Your task to perform on an android device: read, delete, or share a saved page in the chrome app Image 0: 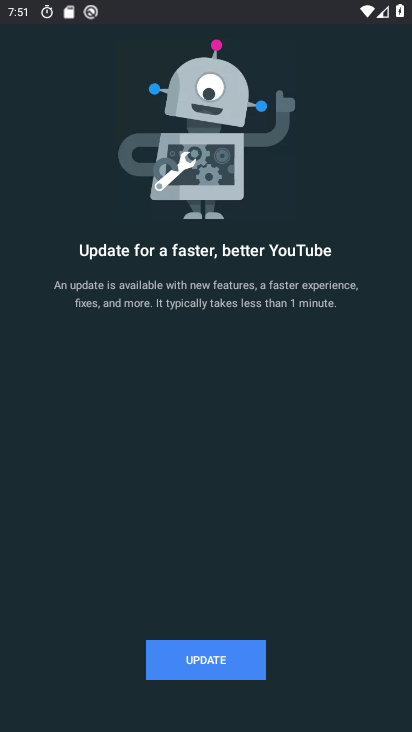
Step 0: press home button
Your task to perform on an android device: read, delete, or share a saved page in the chrome app Image 1: 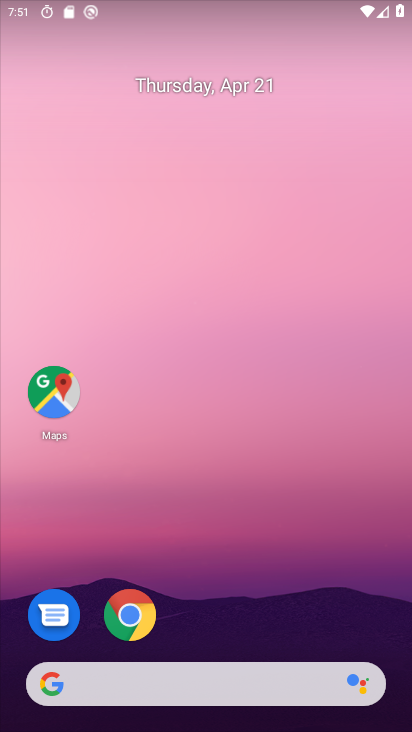
Step 1: drag from (208, 679) to (363, 110)
Your task to perform on an android device: read, delete, or share a saved page in the chrome app Image 2: 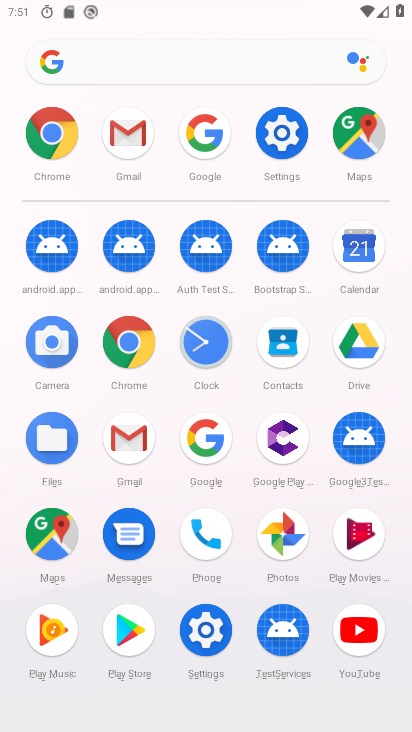
Step 2: click (59, 139)
Your task to perform on an android device: read, delete, or share a saved page in the chrome app Image 3: 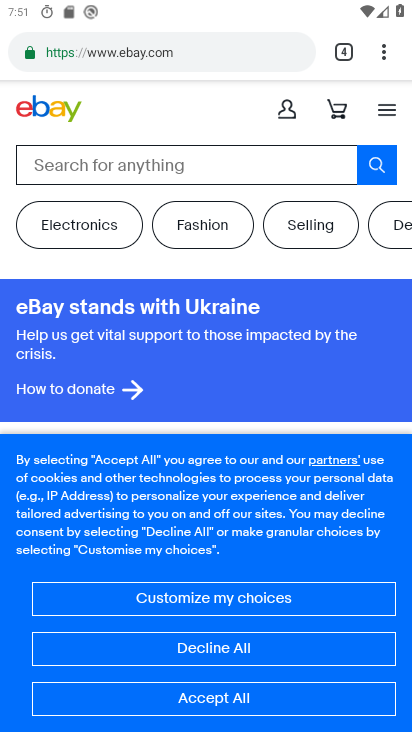
Step 3: click (370, 62)
Your task to perform on an android device: read, delete, or share a saved page in the chrome app Image 4: 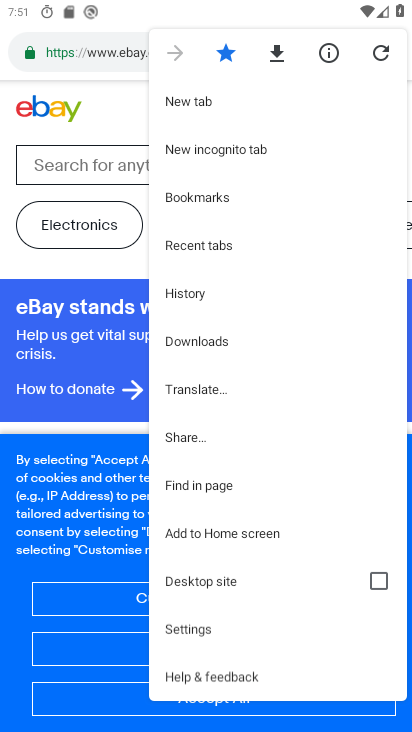
Step 4: click (379, 62)
Your task to perform on an android device: read, delete, or share a saved page in the chrome app Image 5: 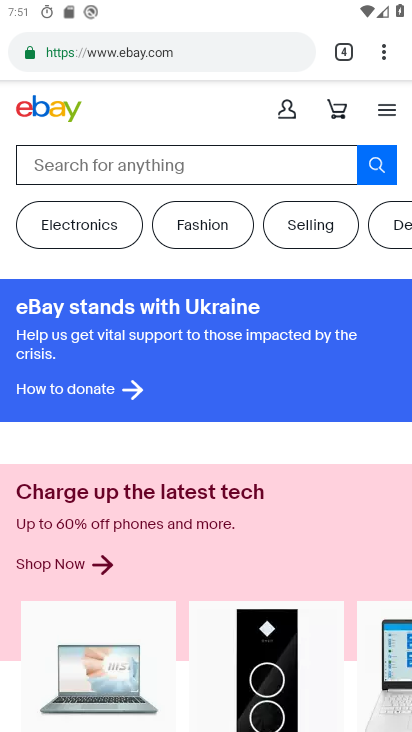
Step 5: click (372, 66)
Your task to perform on an android device: read, delete, or share a saved page in the chrome app Image 6: 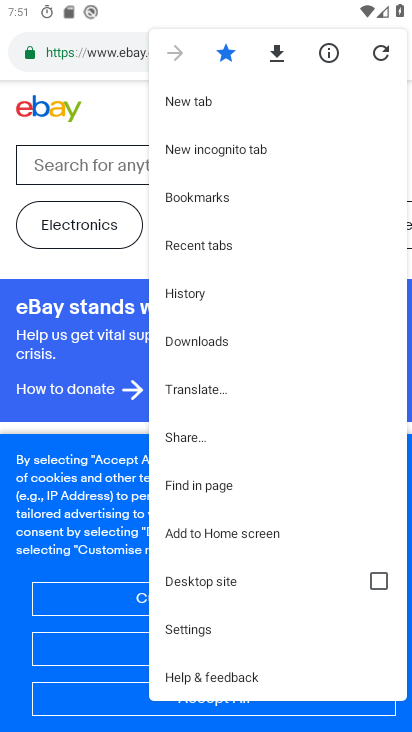
Step 6: click (211, 337)
Your task to perform on an android device: read, delete, or share a saved page in the chrome app Image 7: 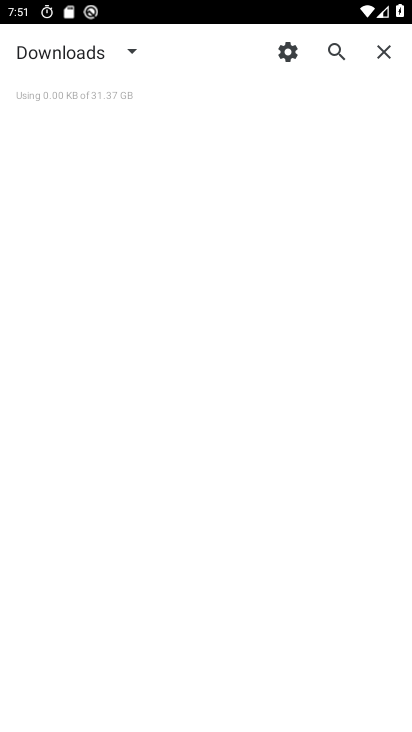
Step 7: click (133, 50)
Your task to perform on an android device: read, delete, or share a saved page in the chrome app Image 8: 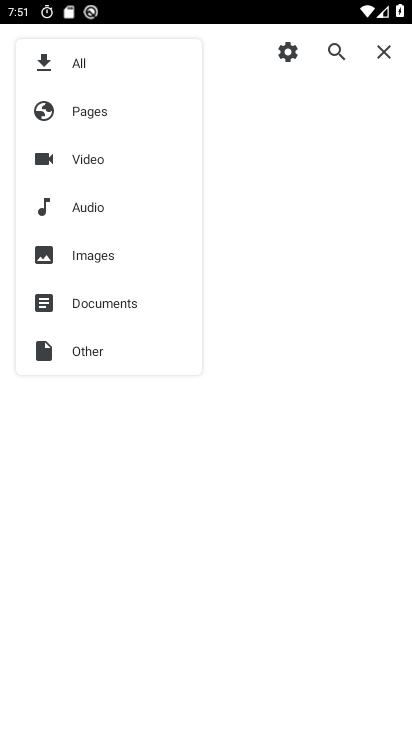
Step 8: click (90, 110)
Your task to perform on an android device: read, delete, or share a saved page in the chrome app Image 9: 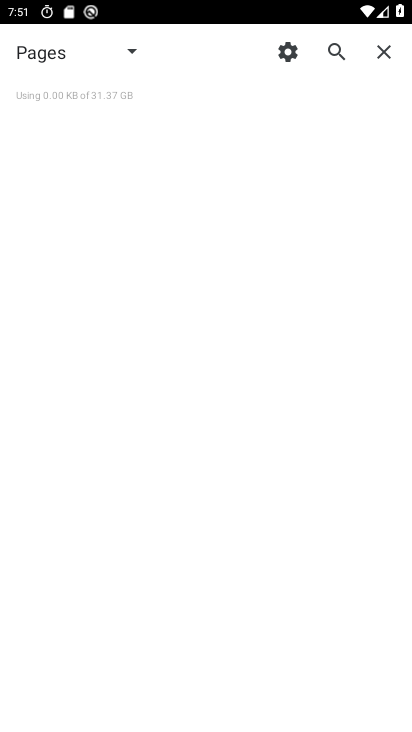
Step 9: task complete